Your task to perform on an android device: find which apps use the phone's location Image 0: 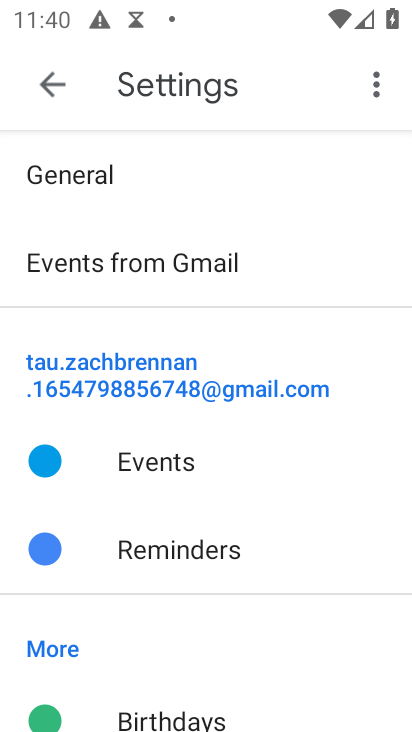
Step 0: press home button
Your task to perform on an android device: find which apps use the phone's location Image 1: 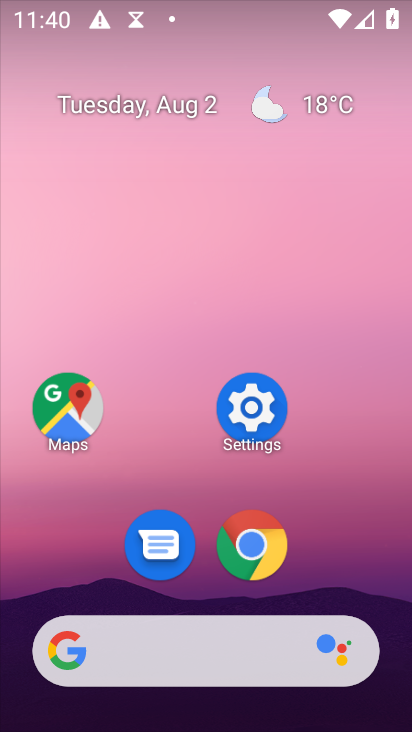
Step 1: drag from (193, 660) to (306, 28)
Your task to perform on an android device: find which apps use the phone's location Image 2: 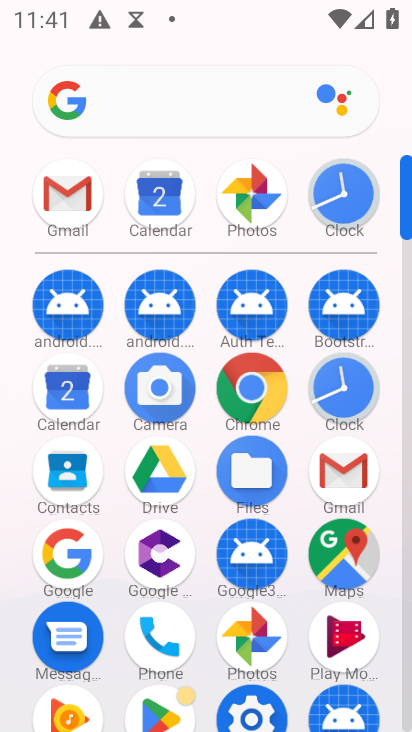
Step 2: drag from (229, 626) to (352, 164)
Your task to perform on an android device: find which apps use the phone's location Image 3: 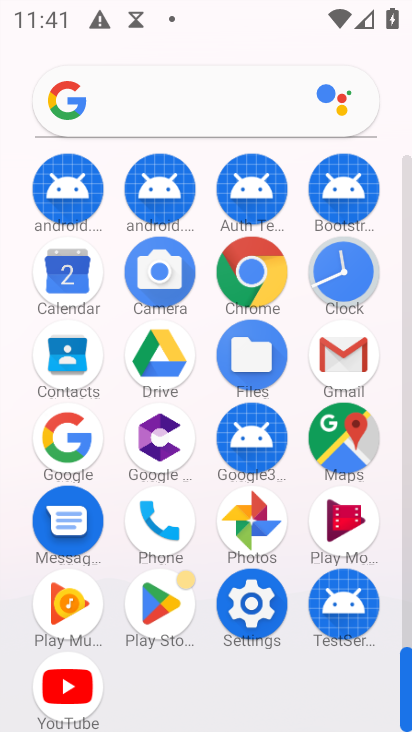
Step 3: click (253, 597)
Your task to perform on an android device: find which apps use the phone's location Image 4: 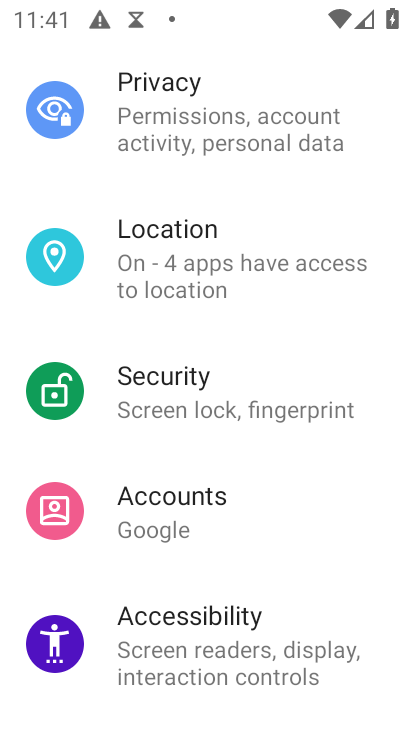
Step 4: click (199, 256)
Your task to perform on an android device: find which apps use the phone's location Image 5: 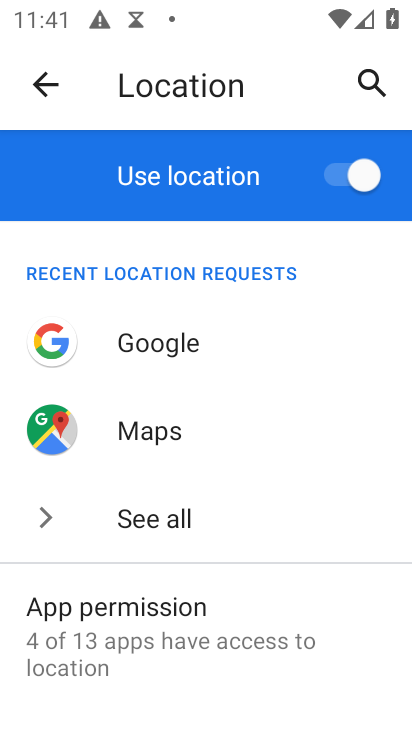
Step 5: drag from (230, 639) to (355, 196)
Your task to perform on an android device: find which apps use the phone's location Image 6: 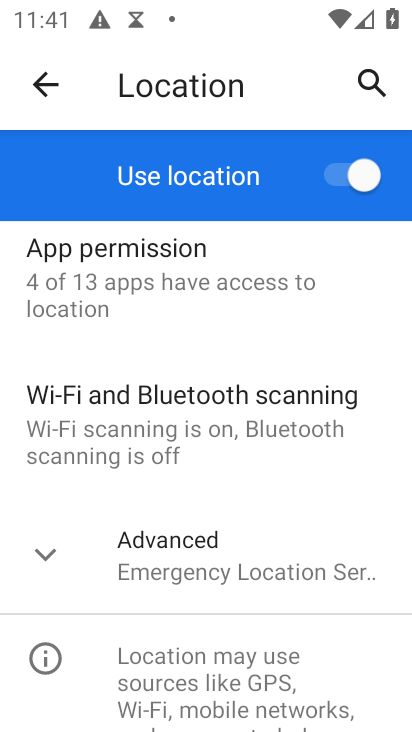
Step 6: click (114, 261)
Your task to perform on an android device: find which apps use the phone's location Image 7: 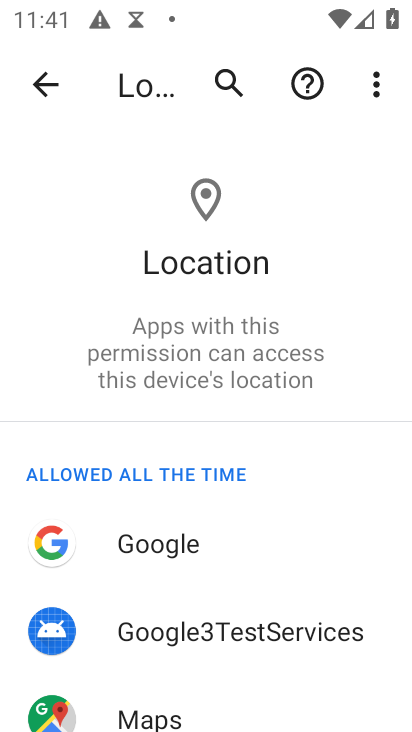
Step 7: drag from (251, 673) to (312, 110)
Your task to perform on an android device: find which apps use the phone's location Image 8: 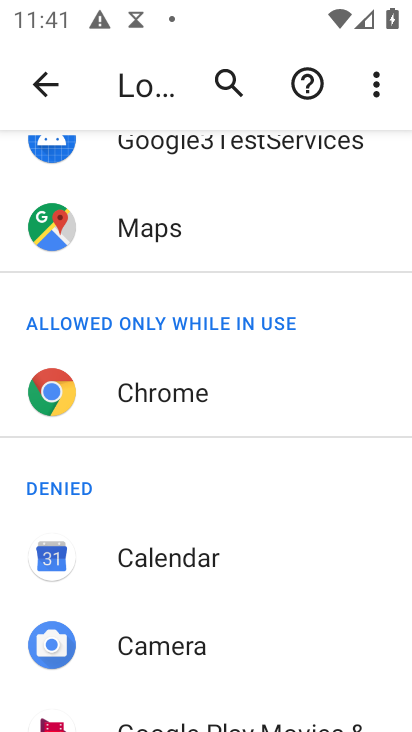
Step 8: drag from (231, 629) to (239, 126)
Your task to perform on an android device: find which apps use the phone's location Image 9: 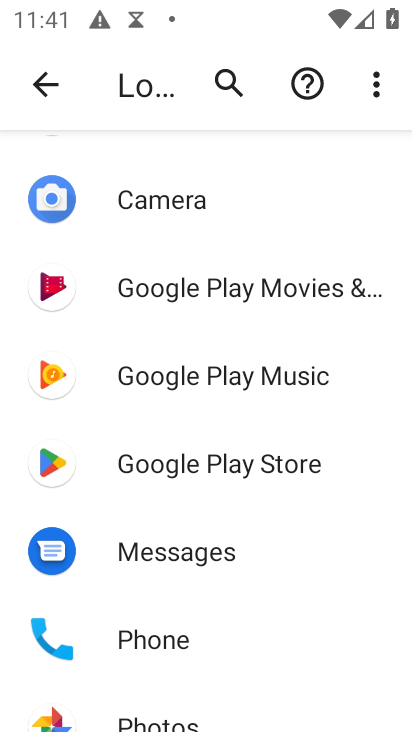
Step 9: drag from (219, 668) to (266, 308)
Your task to perform on an android device: find which apps use the phone's location Image 10: 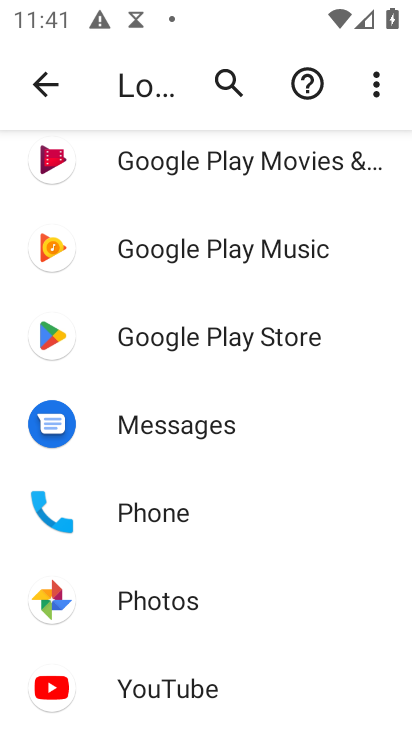
Step 10: click (167, 509)
Your task to perform on an android device: find which apps use the phone's location Image 11: 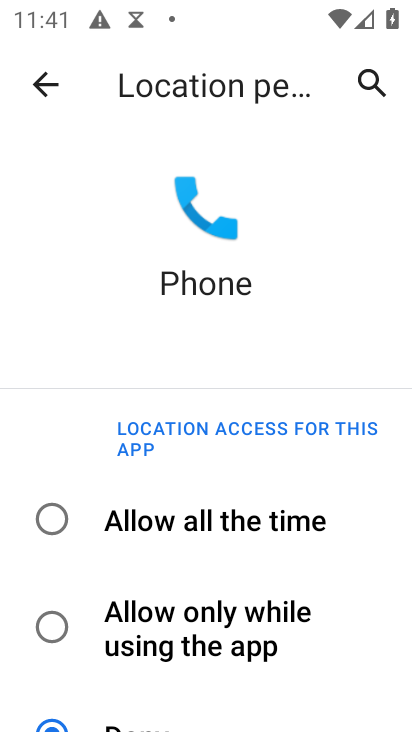
Step 11: task complete